Your task to perform on an android device: Open wifi settings Image 0: 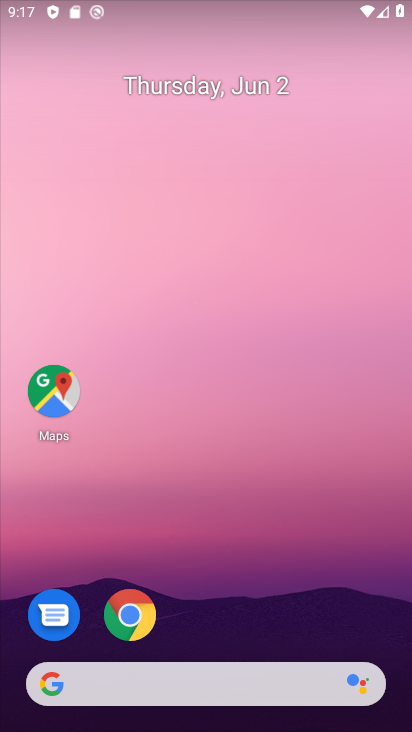
Step 0: drag from (254, 635) to (411, 102)
Your task to perform on an android device: Open wifi settings Image 1: 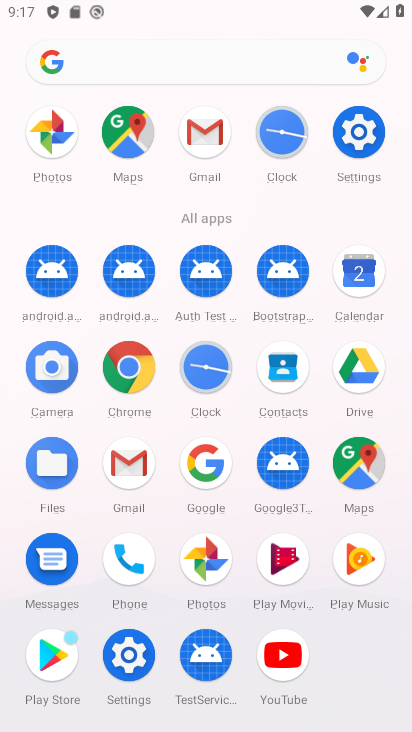
Step 1: click (372, 133)
Your task to perform on an android device: Open wifi settings Image 2: 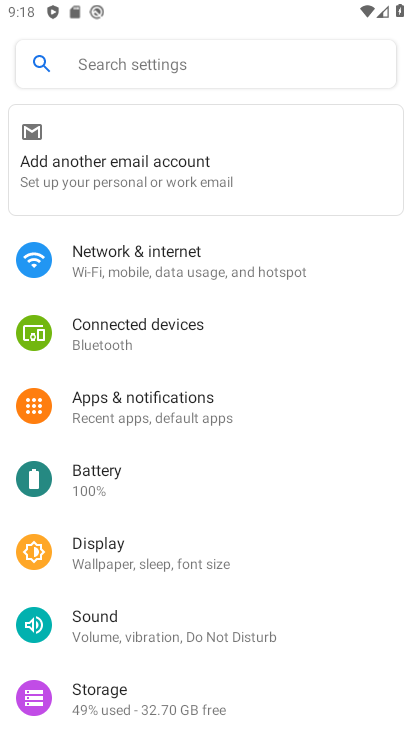
Step 2: click (118, 265)
Your task to perform on an android device: Open wifi settings Image 3: 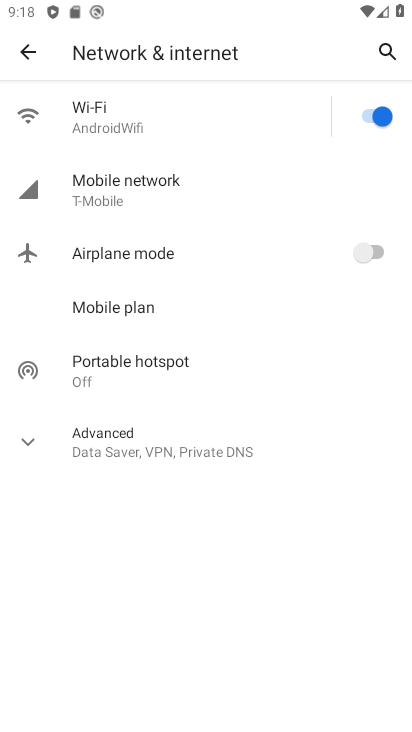
Step 3: click (195, 108)
Your task to perform on an android device: Open wifi settings Image 4: 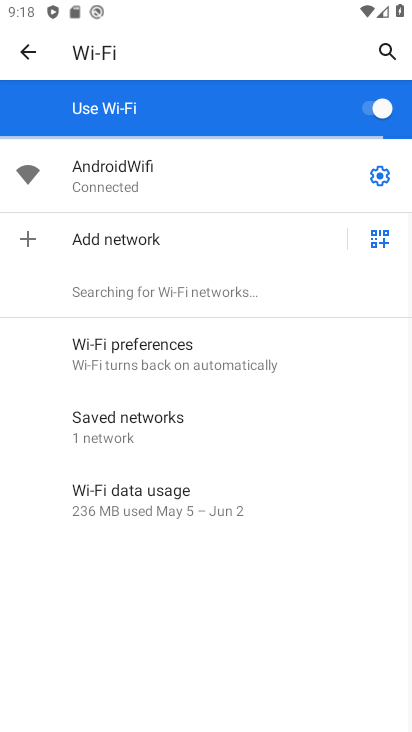
Step 4: task complete